Your task to perform on an android device: Open the calendar and show me this week's events? Image 0: 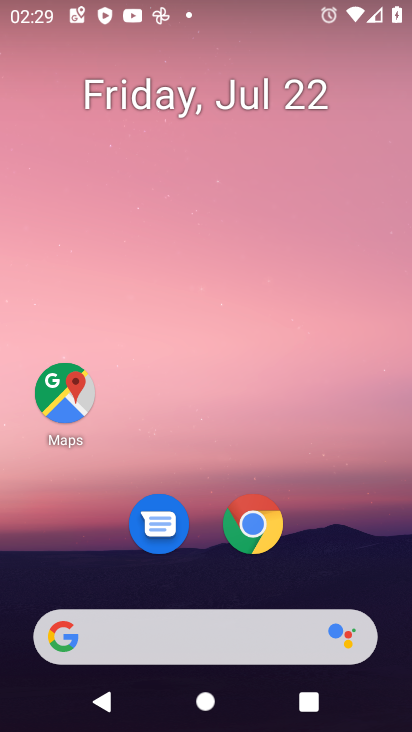
Step 0: drag from (279, 570) to (313, 160)
Your task to perform on an android device: Open the calendar and show me this week's events? Image 1: 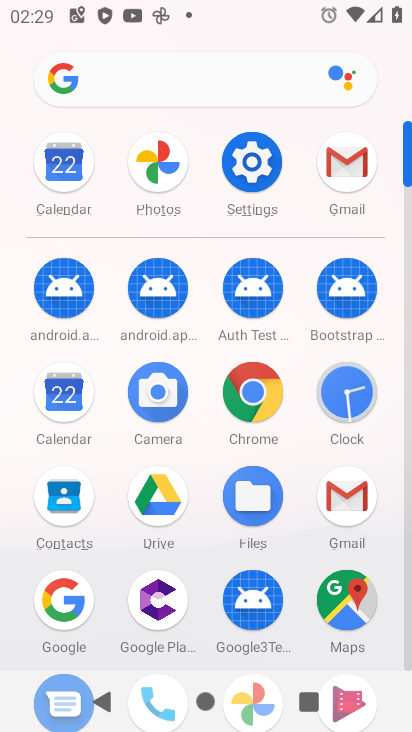
Step 1: click (69, 178)
Your task to perform on an android device: Open the calendar and show me this week's events? Image 2: 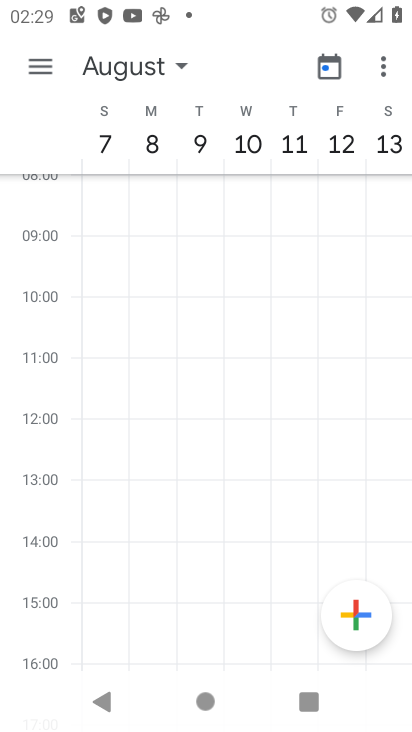
Step 2: click (146, 58)
Your task to perform on an android device: Open the calendar and show me this week's events? Image 3: 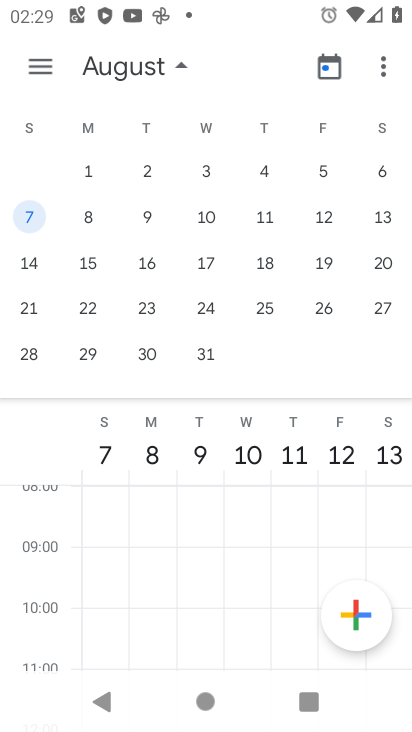
Step 3: drag from (69, 274) to (354, 237)
Your task to perform on an android device: Open the calendar and show me this week's events? Image 4: 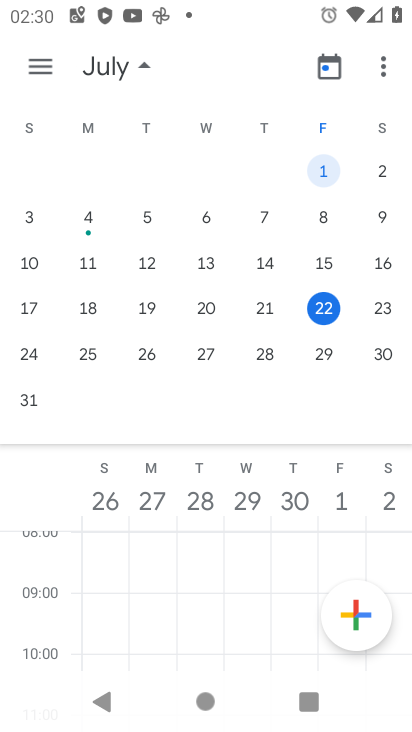
Step 4: click (325, 307)
Your task to perform on an android device: Open the calendar and show me this week's events? Image 5: 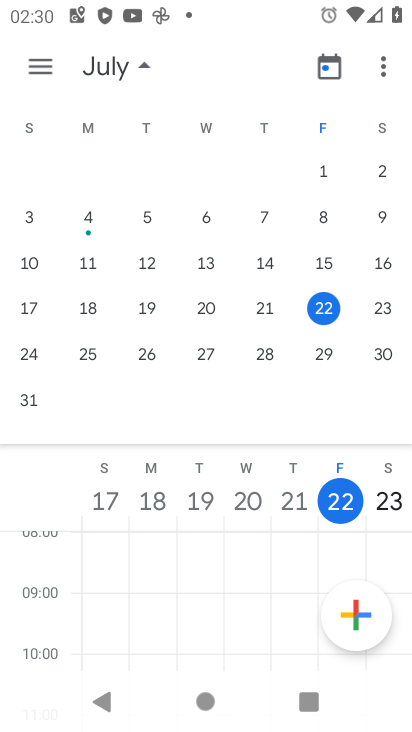
Step 5: click (48, 62)
Your task to perform on an android device: Open the calendar and show me this week's events? Image 6: 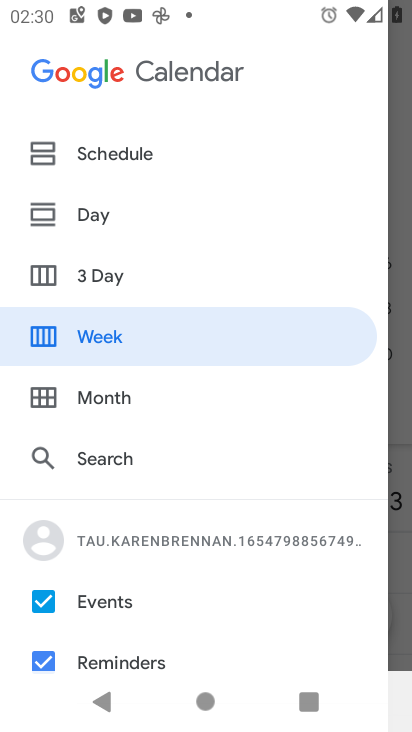
Step 6: click (130, 158)
Your task to perform on an android device: Open the calendar and show me this week's events? Image 7: 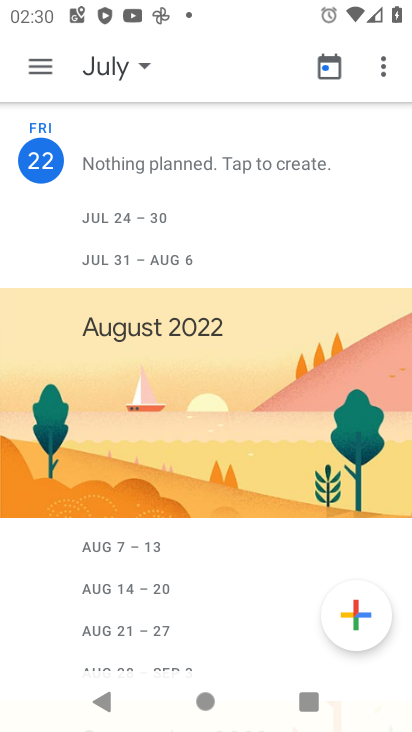
Step 7: task complete